Your task to perform on an android device: turn off data saver in the chrome app Image 0: 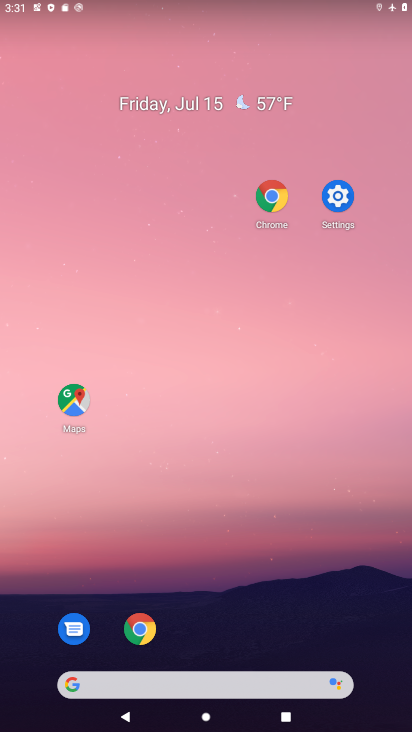
Step 0: click (106, 188)
Your task to perform on an android device: turn off data saver in the chrome app Image 1: 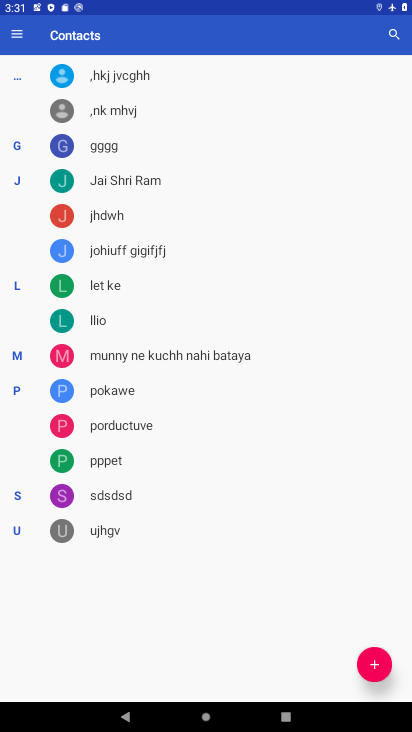
Step 1: press back button
Your task to perform on an android device: turn off data saver in the chrome app Image 2: 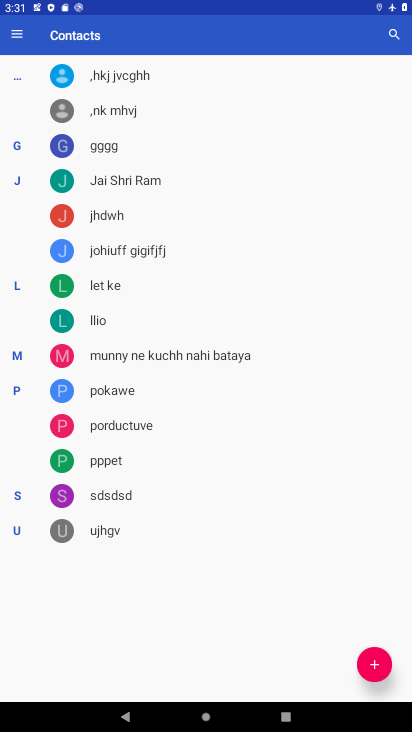
Step 2: press back button
Your task to perform on an android device: turn off data saver in the chrome app Image 3: 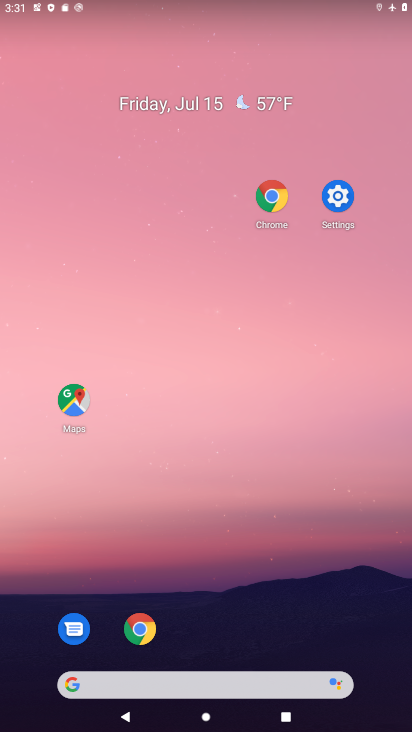
Step 3: drag from (216, 632) to (216, 75)
Your task to perform on an android device: turn off data saver in the chrome app Image 4: 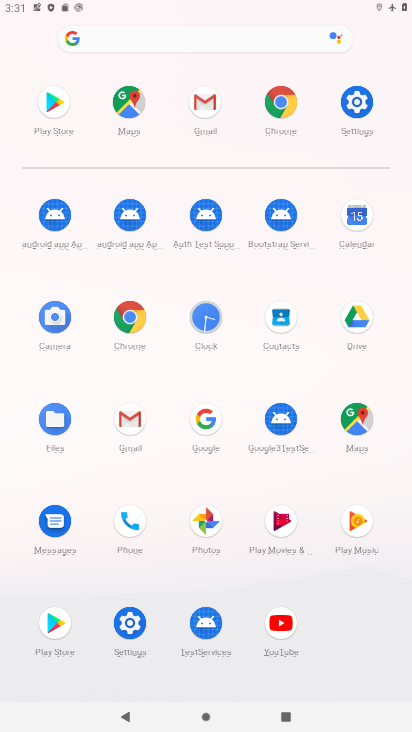
Step 4: click (347, 98)
Your task to perform on an android device: turn off data saver in the chrome app Image 5: 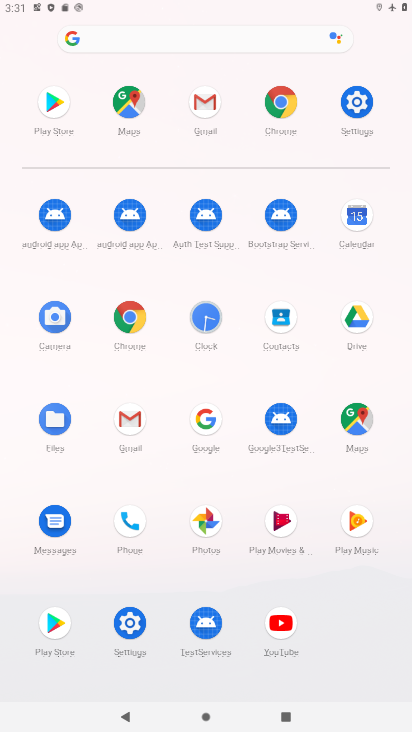
Step 5: click (352, 96)
Your task to perform on an android device: turn off data saver in the chrome app Image 6: 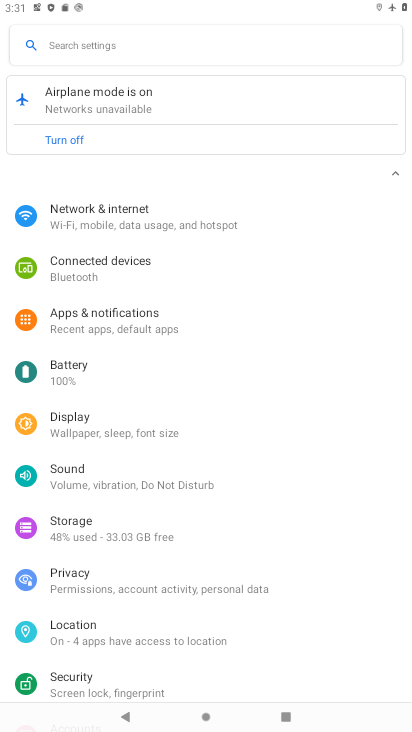
Step 6: click (104, 215)
Your task to perform on an android device: turn off data saver in the chrome app Image 7: 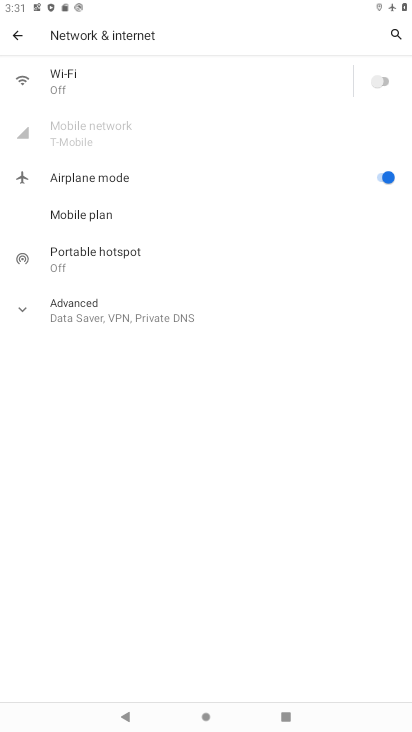
Step 7: click (386, 176)
Your task to perform on an android device: turn off data saver in the chrome app Image 8: 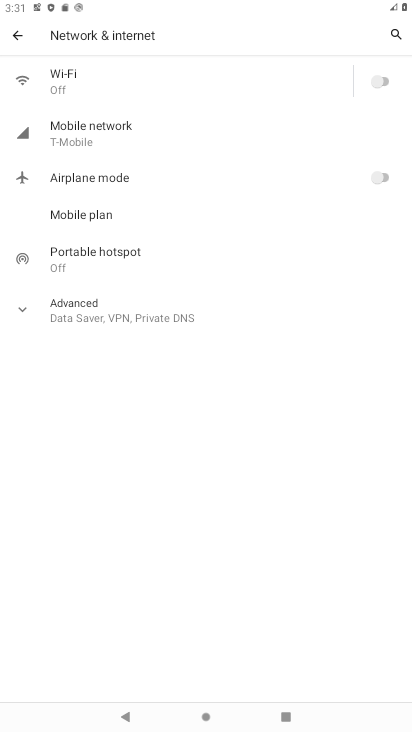
Step 8: click (387, 78)
Your task to perform on an android device: turn off data saver in the chrome app Image 9: 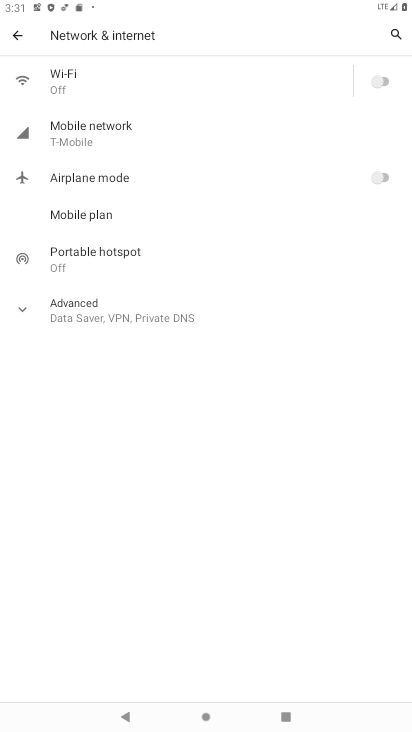
Step 9: click (382, 77)
Your task to perform on an android device: turn off data saver in the chrome app Image 10: 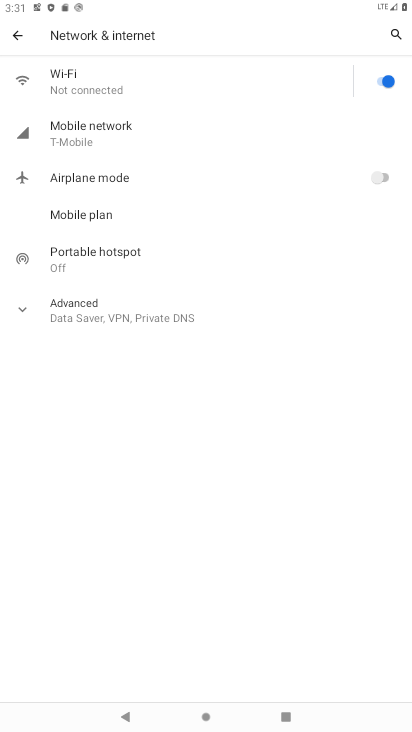
Step 10: press back button
Your task to perform on an android device: turn off data saver in the chrome app Image 11: 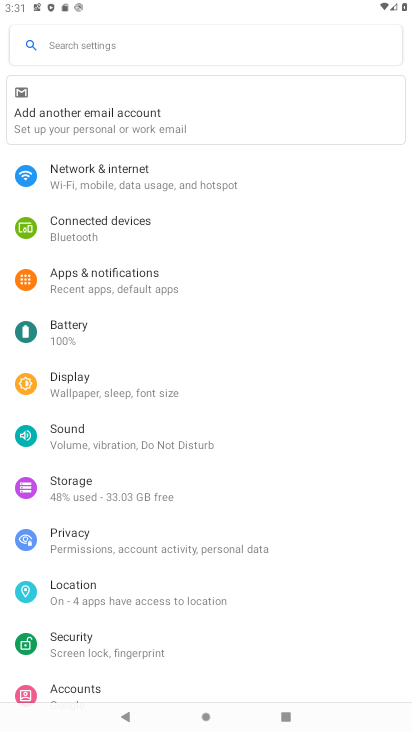
Step 11: press home button
Your task to perform on an android device: turn off data saver in the chrome app Image 12: 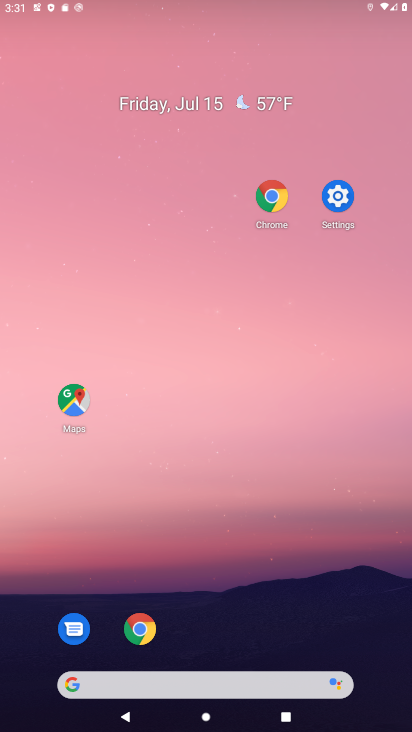
Step 12: drag from (239, 625) to (232, 78)
Your task to perform on an android device: turn off data saver in the chrome app Image 13: 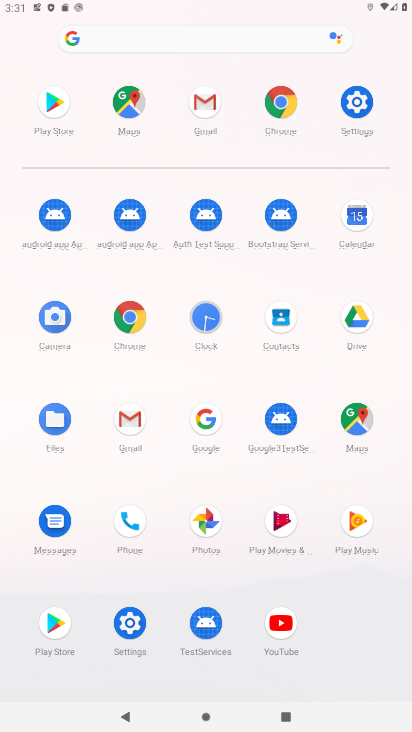
Step 13: click (293, 101)
Your task to perform on an android device: turn off data saver in the chrome app Image 14: 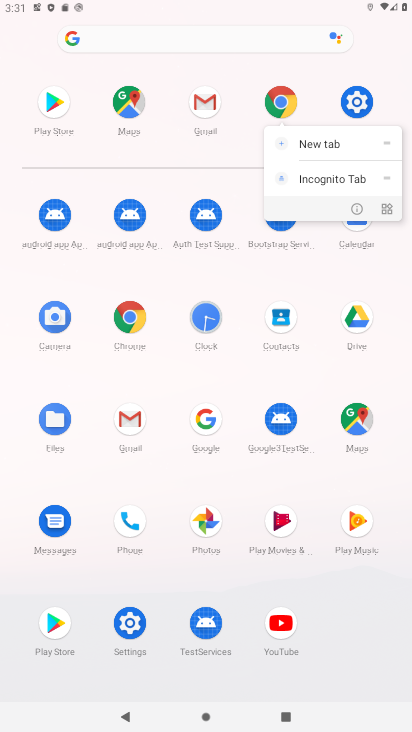
Step 14: click (291, 100)
Your task to perform on an android device: turn off data saver in the chrome app Image 15: 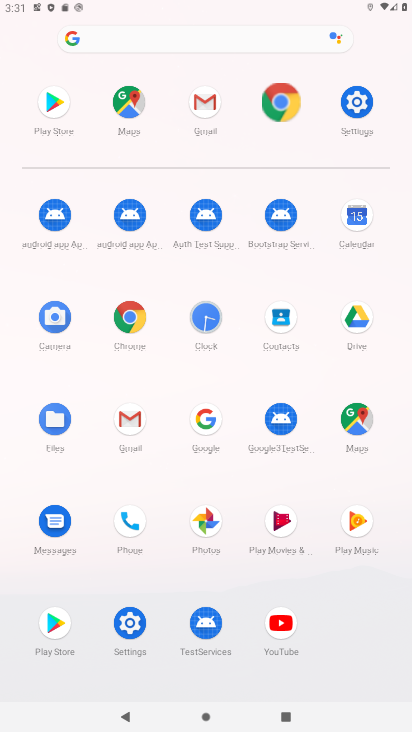
Step 15: click (290, 98)
Your task to perform on an android device: turn off data saver in the chrome app Image 16: 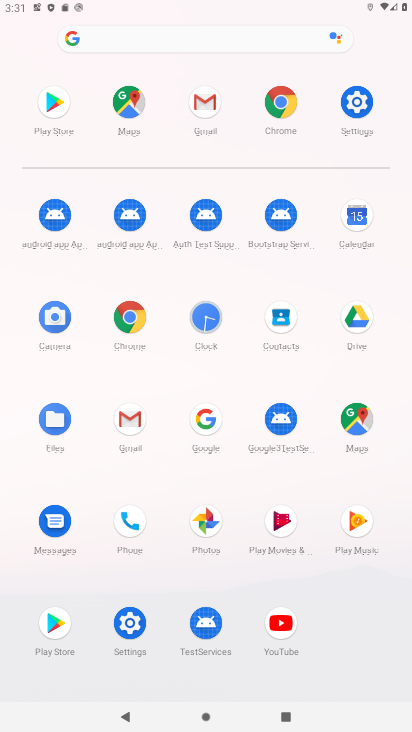
Step 16: click (281, 112)
Your task to perform on an android device: turn off data saver in the chrome app Image 17: 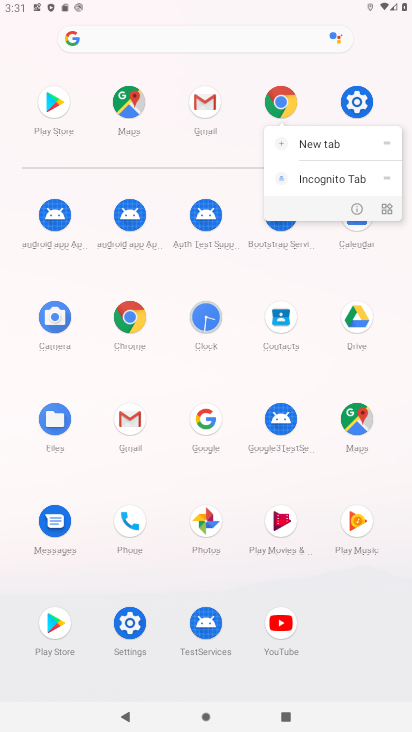
Step 17: click (281, 87)
Your task to perform on an android device: turn off data saver in the chrome app Image 18: 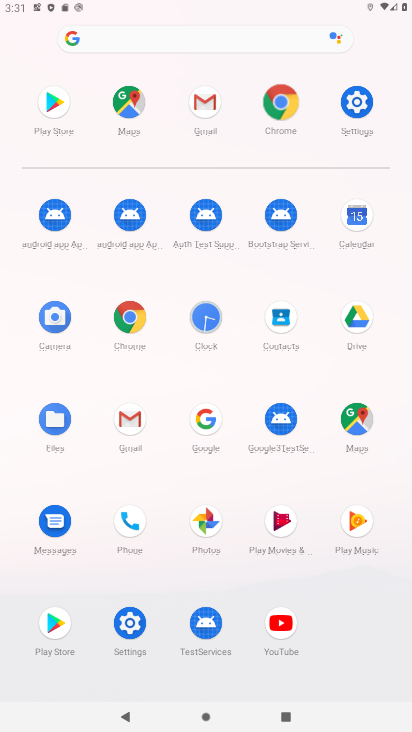
Step 18: click (284, 87)
Your task to perform on an android device: turn off data saver in the chrome app Image 19: 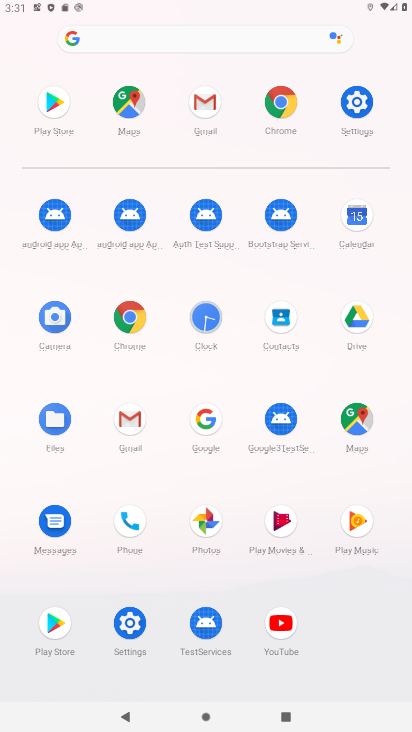
Step 19: click (278, 104)
Your task to perform on an android device: turn off data saver in the chrome app Image 20: 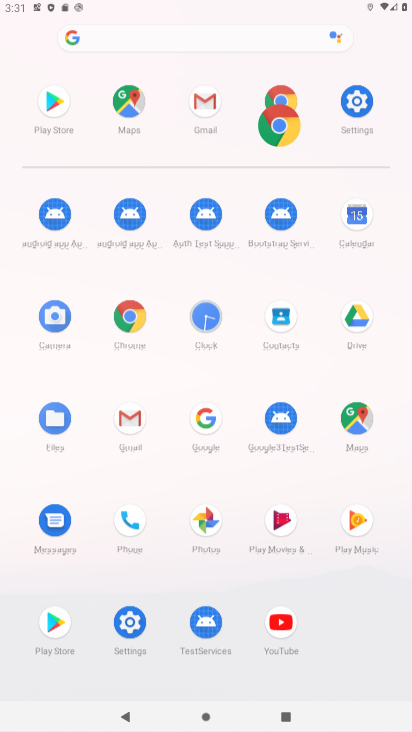
Step 20: click (281, 108)
Your task to perform on an android device: turn off data saver in the chrome app Image 21: 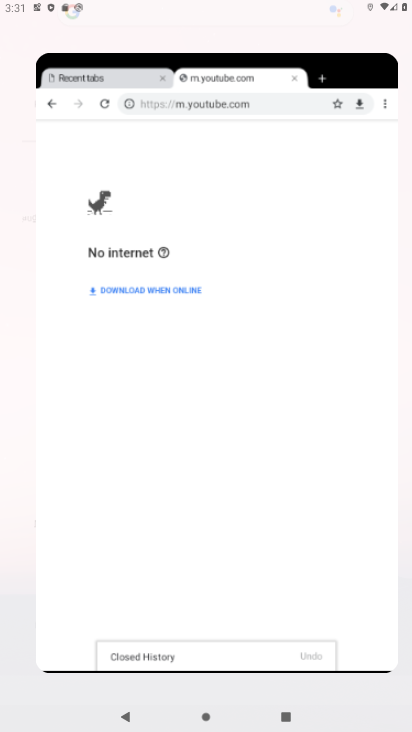
Step 21: click (284, 110)
Your task to perform on an android device: turn off data saver in the chrome app Image 22: 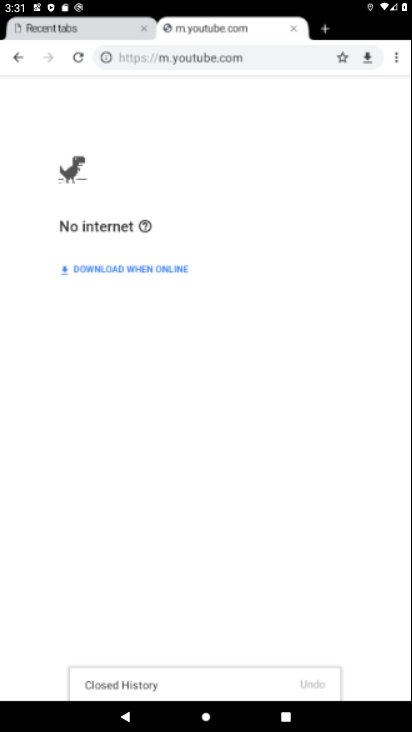
Step 22: click (280, 95)
Your task to perform on an android device: turn off data saver in the chrome app Image 23: 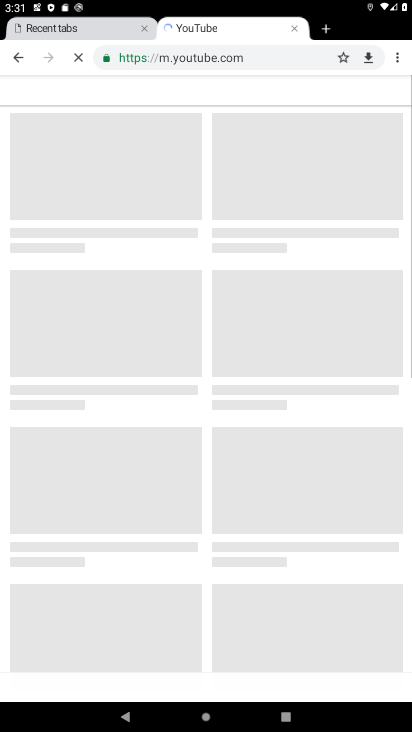
Step 23: click (291, 32)
Your task to perform on an android device: turn off data saver in the chrome app Image 24: 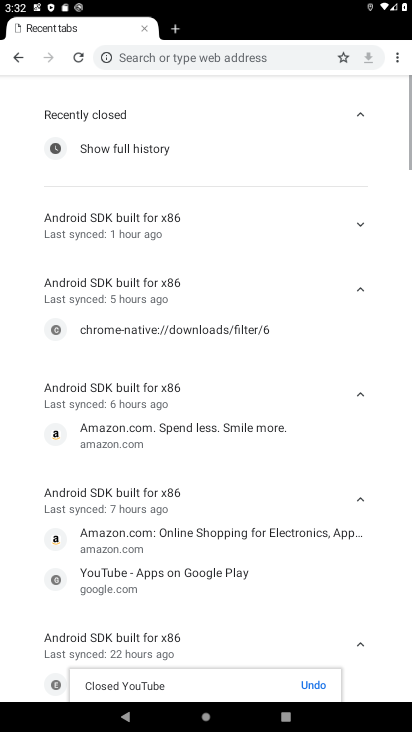
Step 24: drag from (398, 50) to (279, 257)
Your task to perform on an android device: turn off data saver in the chrome app Image 25: 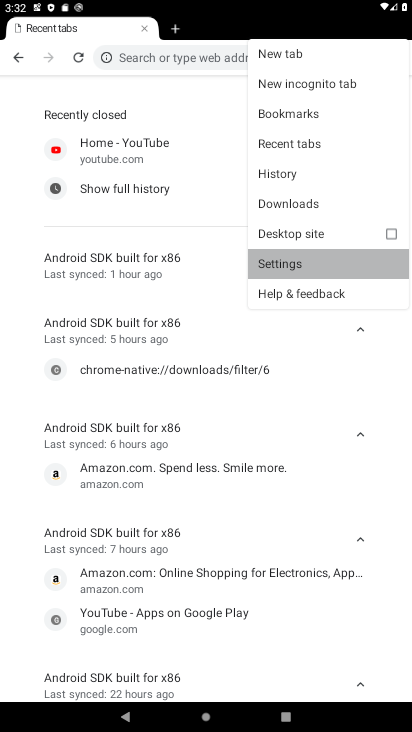
Step 25: click (279, 257)
Your task to perform on an android device: turn off data saver in the chrome app Image 26: 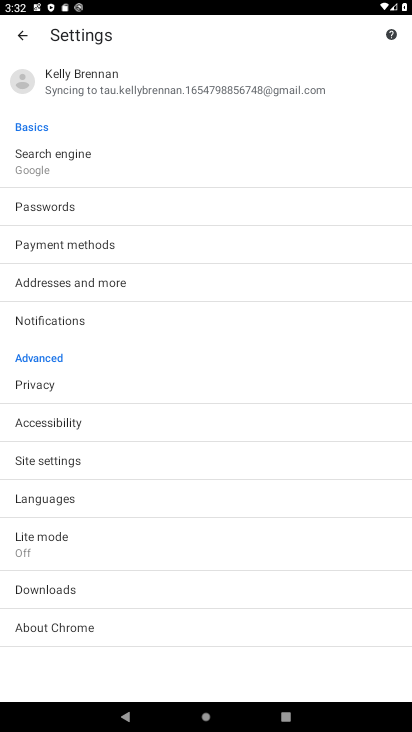
Step 26: click (48, 539)
Your task to perform on an android device: turn off data saver in the chrome app Image 27: 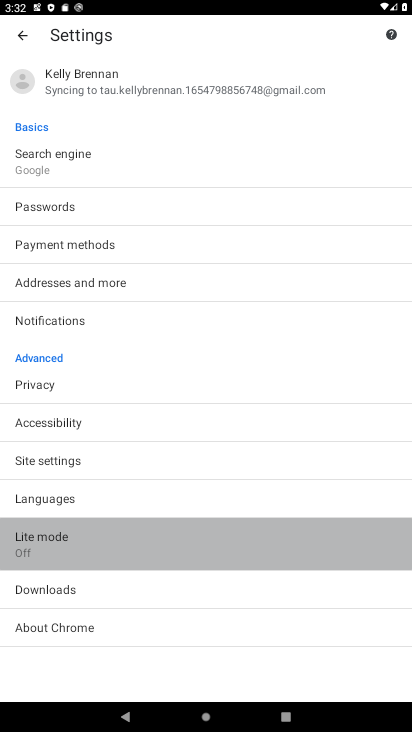
Step 27: click (47, 539)
Your task to perform on an android device: turn off data saver in the chrome app Image 28: 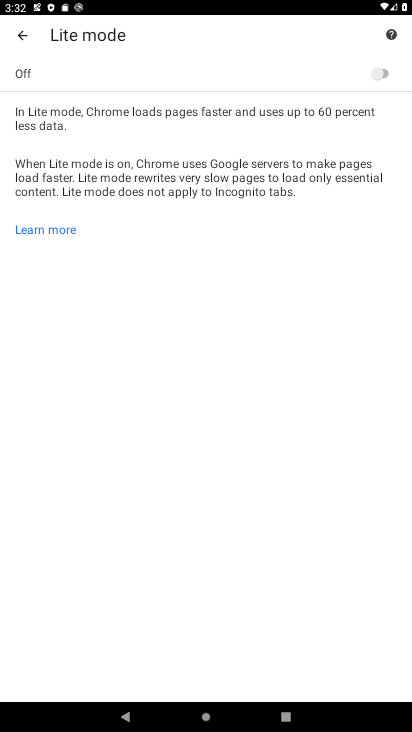
Step 28: task complete